Your task to perform on an android device: Open calendar and show me the first week of next month Image 0: 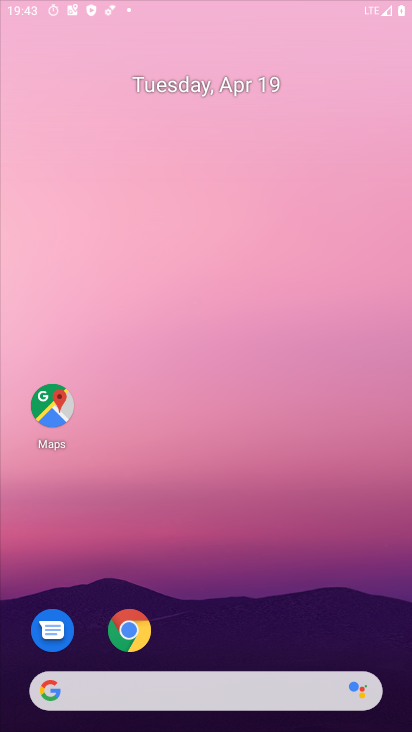
Step 0: drag from (211, 667) to (183, 78)
Your task to perform on an android device: Open calendar and show me the first week of next month Image 1: 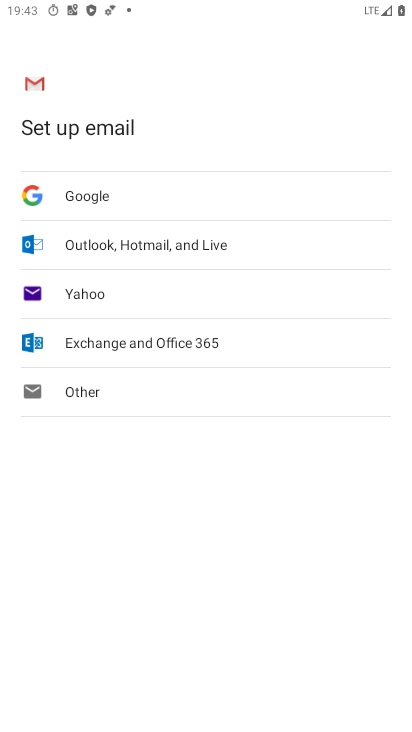
Step 1: press home button
Your task to perform on an android device: Open calendar and show me the first week of next month Image 2: 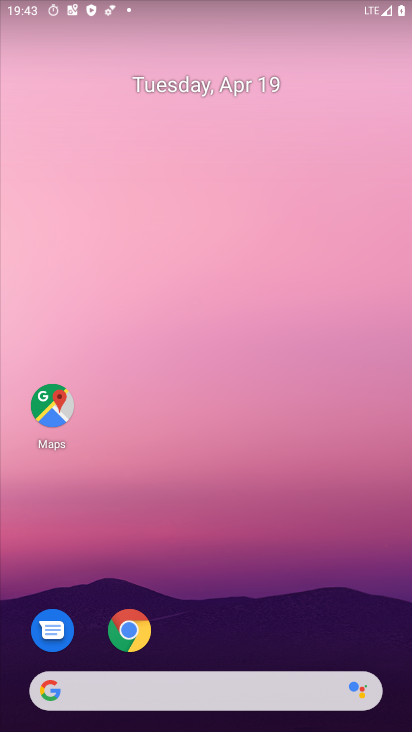
Step 2: drag from (201, 665) to (171, 68)
Your task to perform on an android device: Open calendar and show me the first week of next month Image 3: 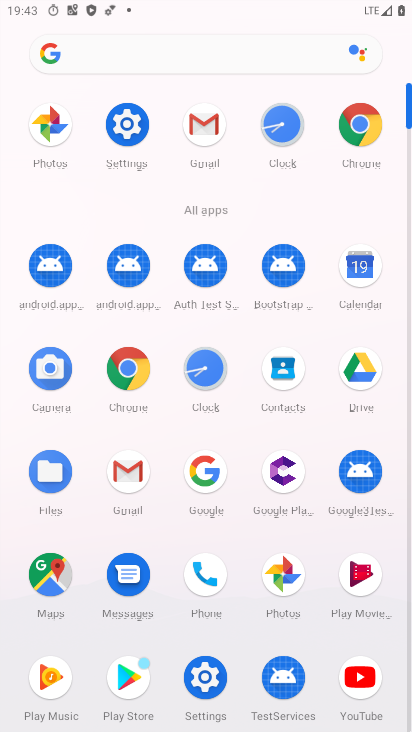
Step 3: click (356, 271)
Your task to perform on an android device: Open calendar and show me the first week of next month Image 4: 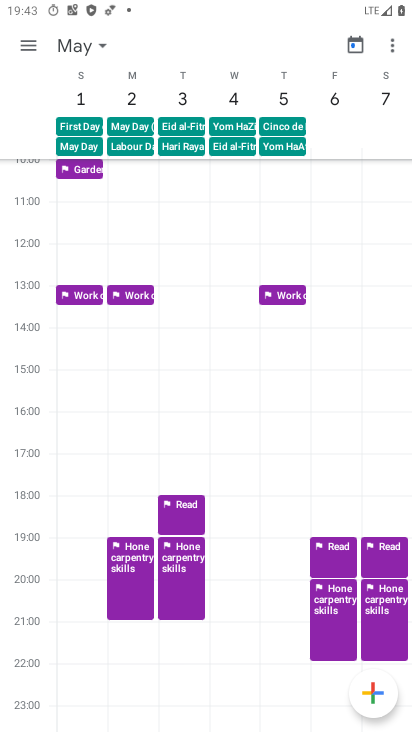
Step 4: task complete